Your task to perform on an android device: Go to settings Image 0: 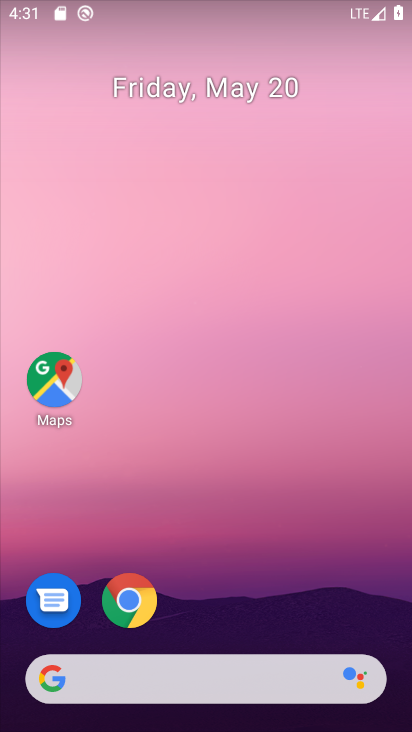
Step 0: drag from (278, 576) to (146, 70)
Your task to perform on an android device: Go to settings Image 1: 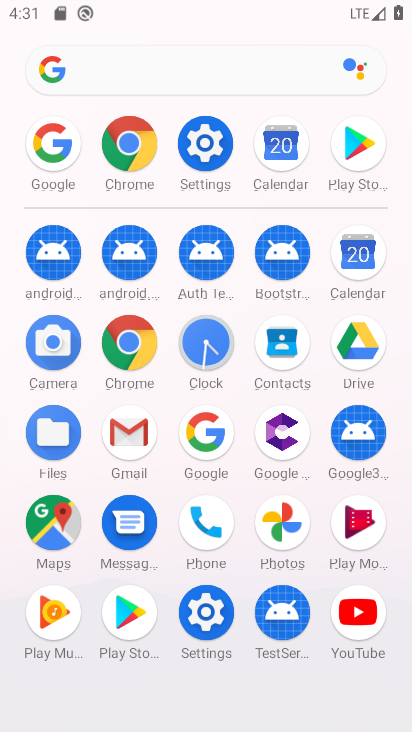
Step 1: click (203, 143)
Your task to perform on an android device: Go to settings Image 2: 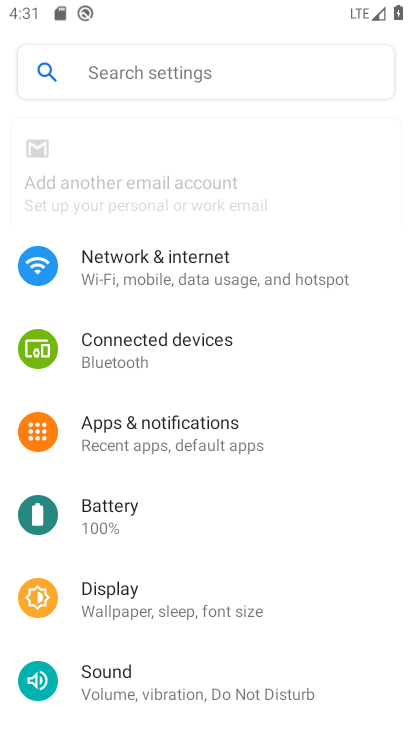
Step 2: task complete